Your task to perform on an android device: change notification settings in the gmail app Image 0: 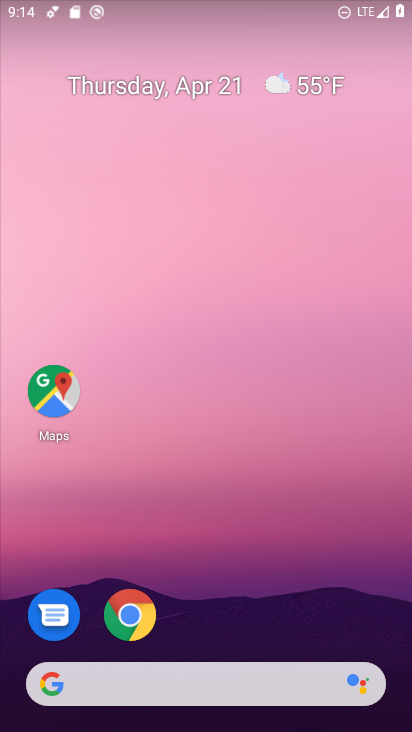
Step 0: drag from (356, 534) to (391, 16)
Your task to perform on an android device: change notification settings in the gmail app Image 1: 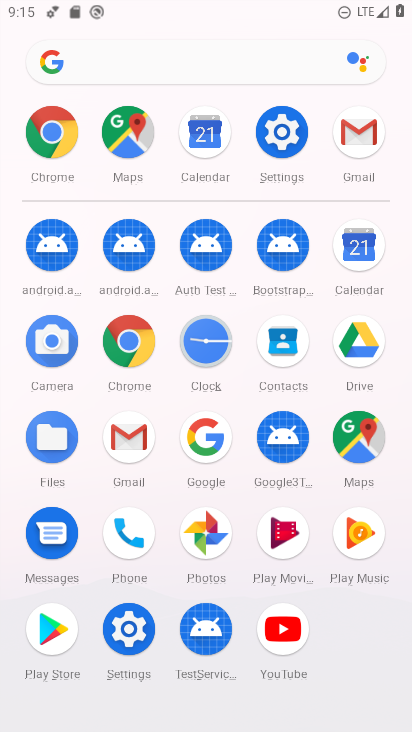
Step 1: click (347, 125)
Your task to perform on an android device: change notification settings in the gmail app Image 2: 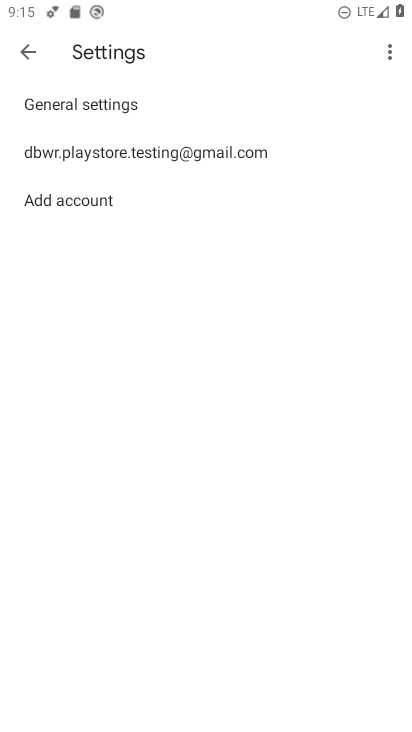
Step 2: click (82, 143)
Your task to perform on an android device: change notification settings in the gmail app Image 3: 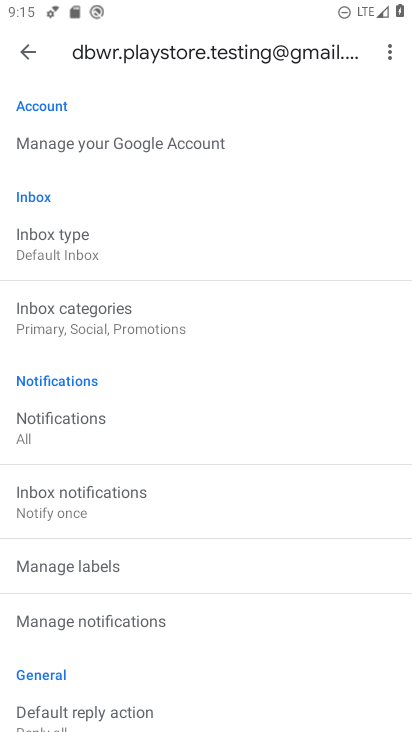
Step 3: click (71, 418)
Your task to perform on an android device: change notification settings in the gmail app Image 4: 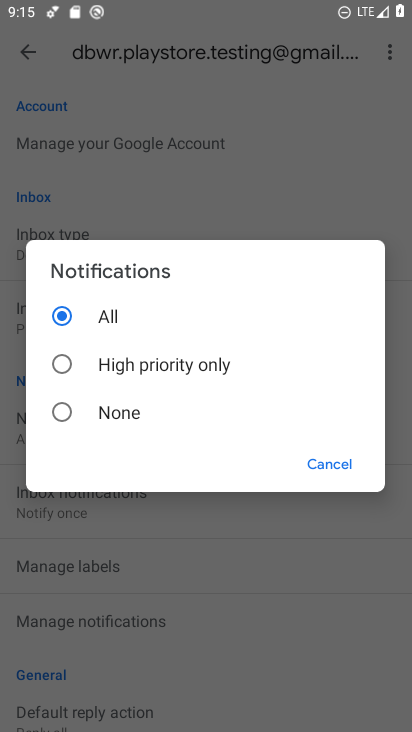
Step 4: click (52, 366)
Your task to perform on an android device: change notification settings in the gmail app Image 5: 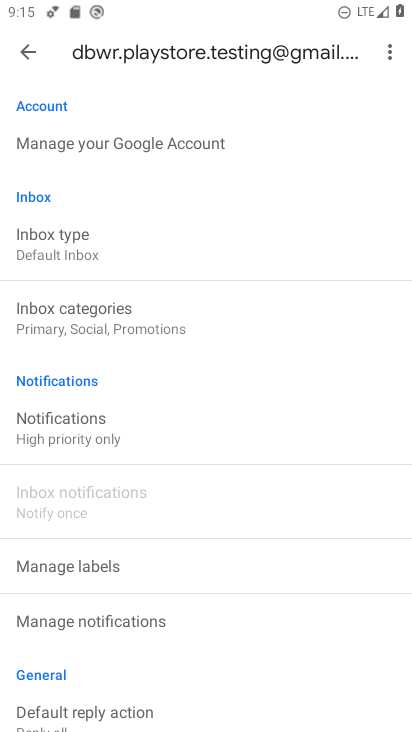
Step 5: task complete